Your task to perform on an android device: check storage Image 0: 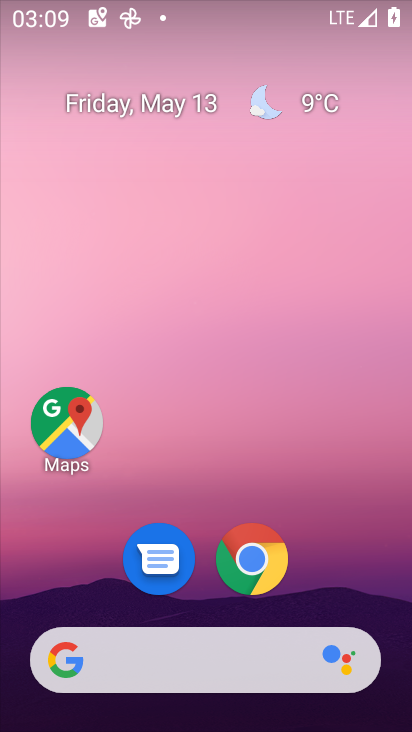
Step 0: drag from (395, 561) to (384, 380)
Your task to perform on an android device: check storage Image 1: 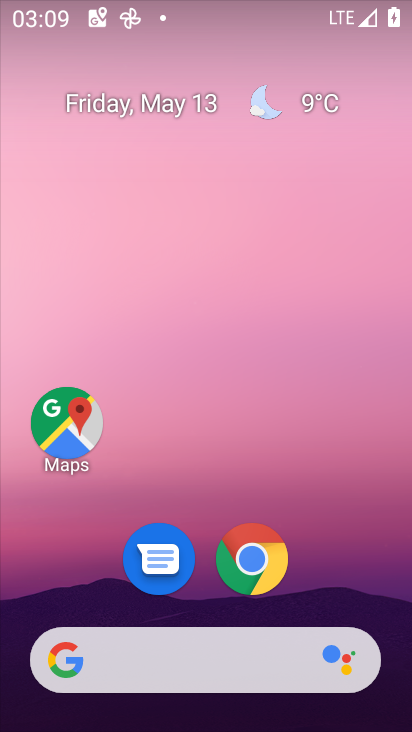
Step 1: drag from (387, 483) to (368, 166)
Your task to perform on an android device: check storage Image 2: 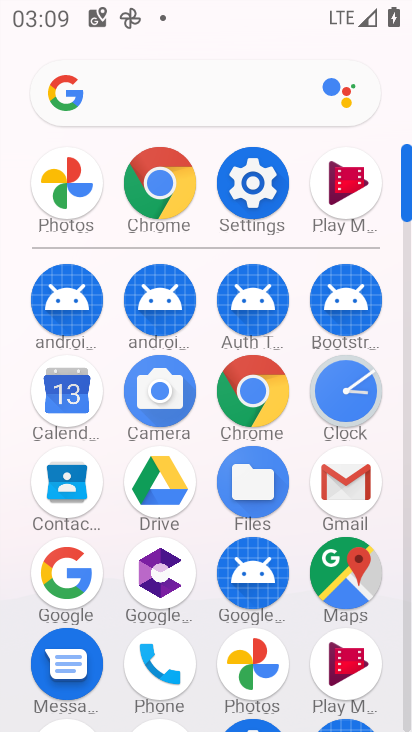
Step 2: click (236, 191)
Your task to perform on an android device: check storage Image 3: 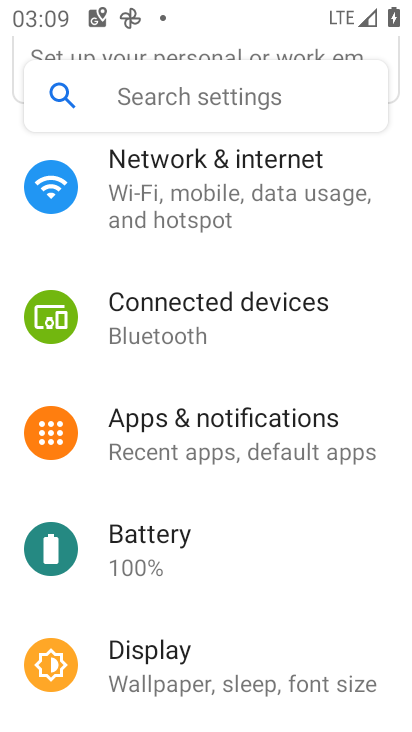
Step 3: drag from (257, 643) to (268, 443)
Your task to perform on an android device: check storage Image 4: 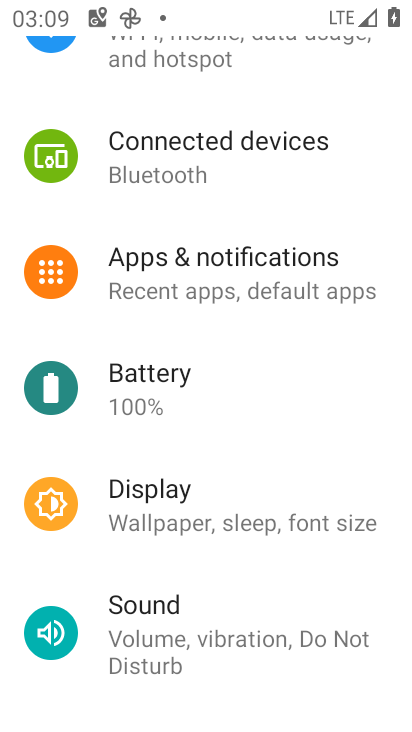
Step 4: drag from (248, 674) to (262, 457)
Your task to perform on an android device: check storage Image 5: 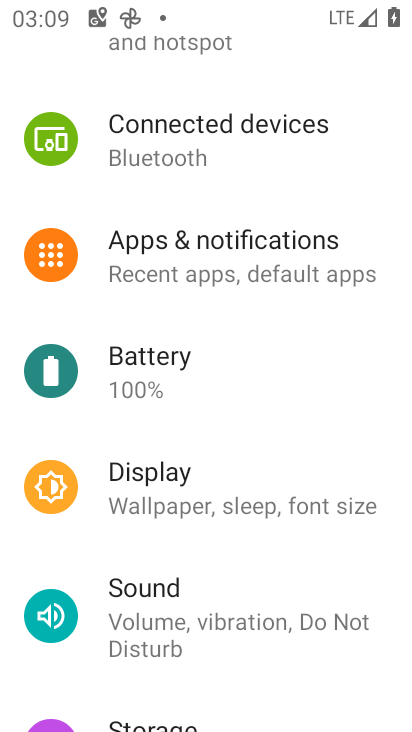
Step 5: drag from (260, 679) to (270, 436)
Your task to perform on an android device: check storage Image 6: 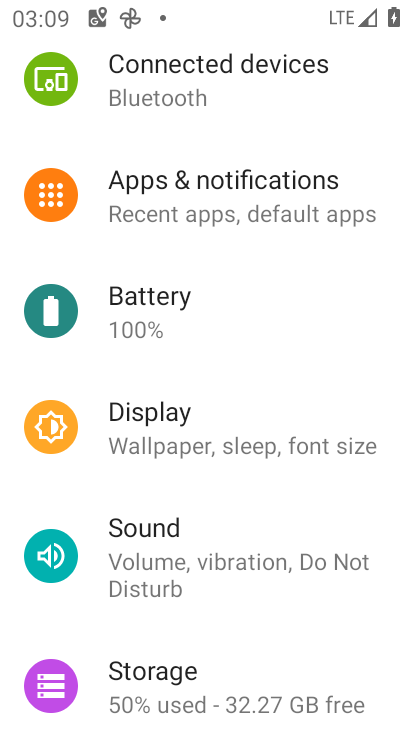
Step 6: click (164, 671)
Your task to perform on an android device: check storage Image 7: 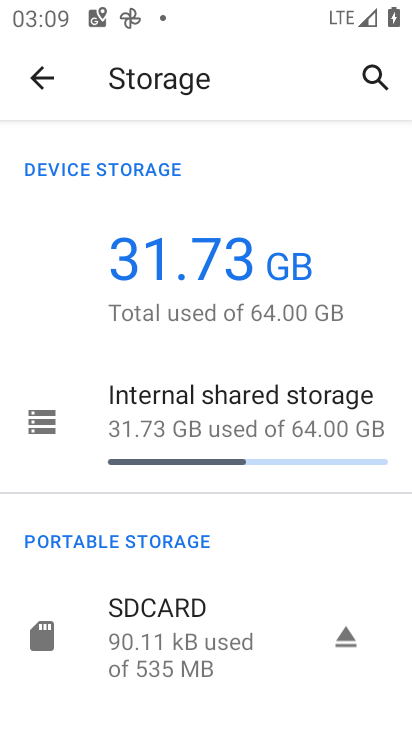
Step 7: task complete